Your task to perform on an android device: uninstall "Adobe Express: Graphic Design" Image 0: 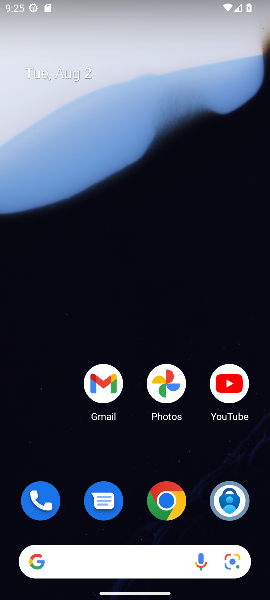
Step 0: drag from (137, 520) to (177, 124)
Your task to perform on an android device: uninstall "Adobe Express: Graphic Design" Image 1: 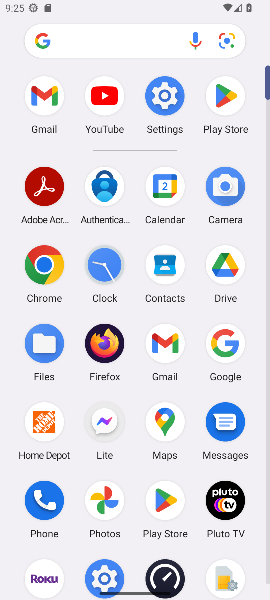
Step 1: click (236, 83)
Your task to perform on an android device: uninstall "Adobe Express: Graphic Design" Image 2: 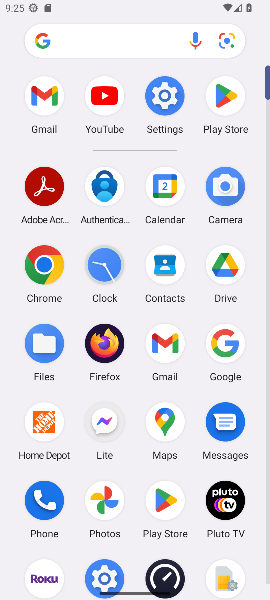
Step 2: click (236, 83)
Your task to perform on an android device: uninstall "Adobe Express: Graphic Design" Image 3: 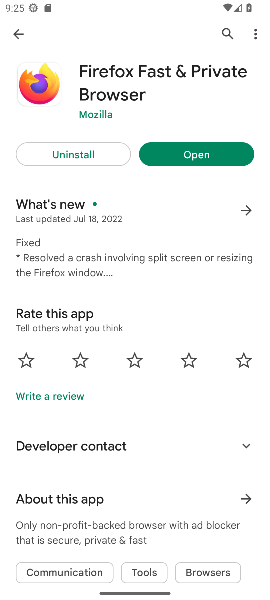
Step 3: drag from (119, 255) to (224, 390)
Your task to perform on an android device: uninstall "Adobe Express: Graphic Design" Image 4: 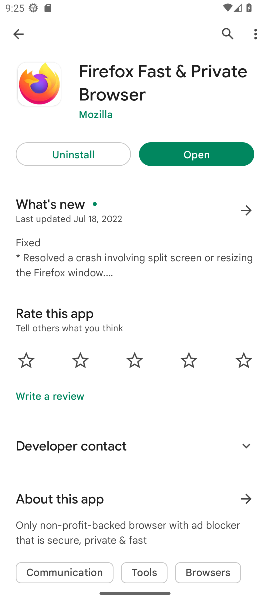
Step 4: click (225, 28)
Your task to perform on an android device: uninstall "Adobe Express: Graphic Design" Image 5: 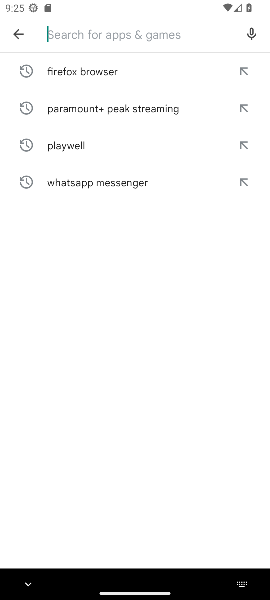
Step 5: type "Adobe Express: Graphic Design"
Your task to perform on an android device: uninstall "Adobe Express: Graphic Design" Image 6: 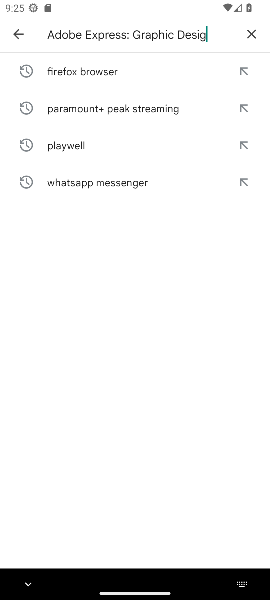
Step 6: type ""
Your task to perform on an android device: uninstall "Adobe Express: Graphic Design" Image 7: 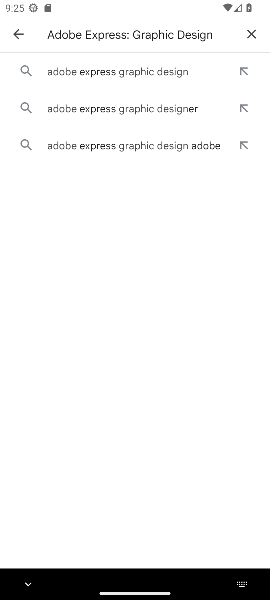
Step 7: click (113, 70)
Your task to perform on an android device: uninstall "Adobe Express: Graphic Design" Image 8: 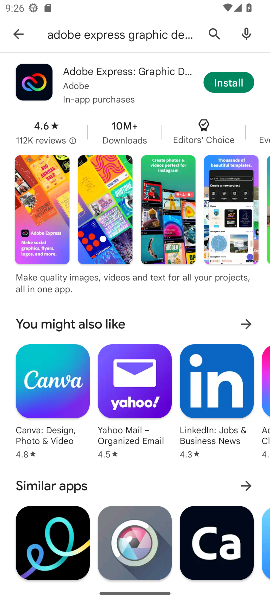
Step 8: drag from (108, 473) to (151, 215)
Your task to perform on an android device: uninstall "Adobe Express: Graphic Design" Image 9: 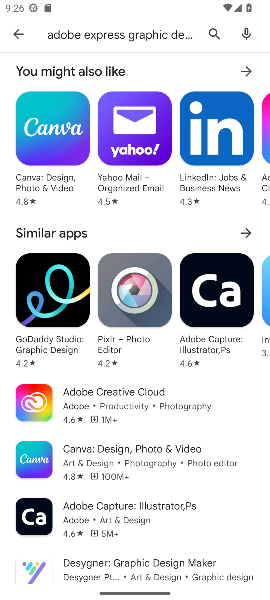
Step 9: drag from (152, 193) to (229, 599)
Your task to perform on an android device: uninstall "Adobe Express: Graphic Design" Image 10: 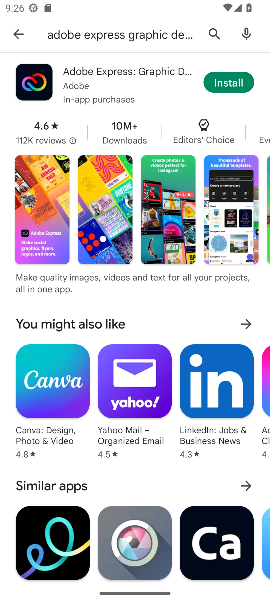
Step 10: click (213, 31)
Your task to perform on an android device: uninstall "Adobe Express: Graphic Design" Image 11: 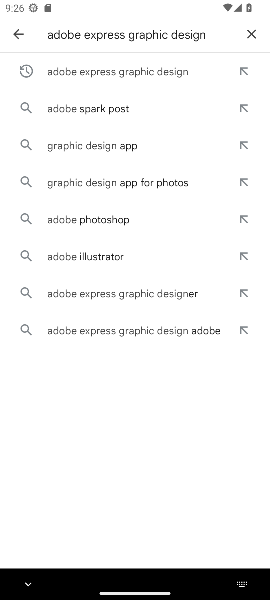
Step 11: click (246, 32)
Your task to perform on an android device: uninstall "Adobe Express: Graphic Design" Image 12: 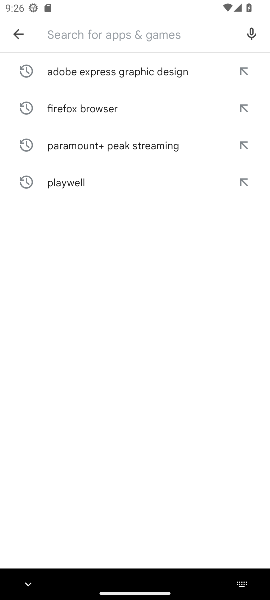
Step 12: type "Adobe Express: Graphic Design"
Your task to perform on an android device: uninstall "Adobe Express: Graphic Design" Image 13: 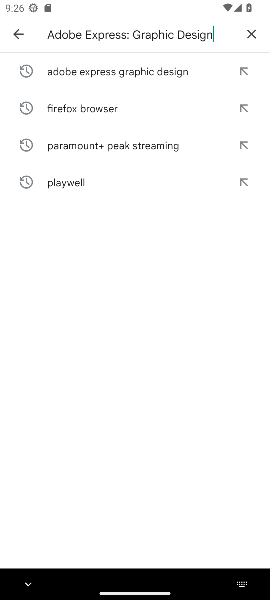
Step 13: type ""
Your task to perform on an android device: uninstall "Adobe Express: Graphic Design" Image 14: 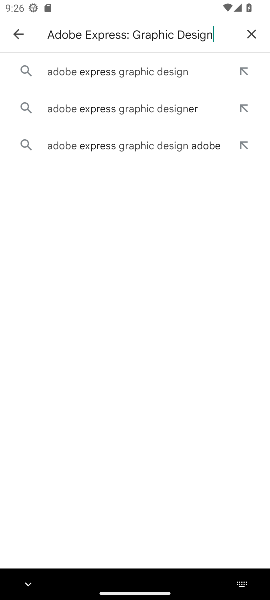
Step 14: click (93, 65)
Your task to perform on an android device: uninstall "Adobe Express: Graphic Design" Image 15: 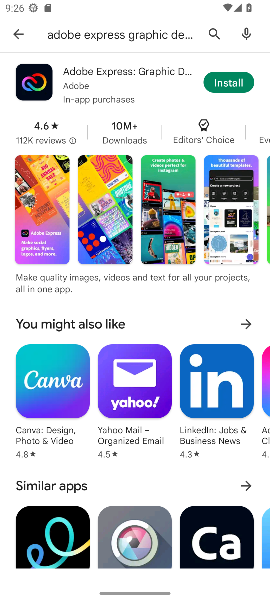
Step 15: drag from (113, 212) to (255, 533)
Your task to perform on an android device: uninstall "Adobe Express: Graphic Design" Image 16: 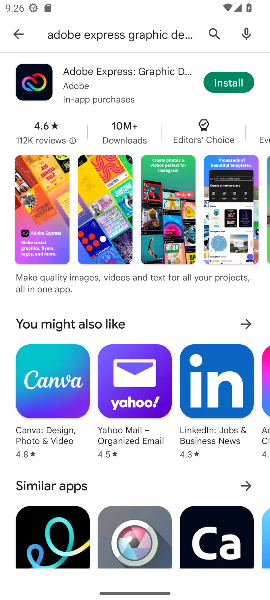
Step 16: click (103, 80)
Your task to perform on an android device: uninstall "Adobe Express: Graphic Design" Image 17: 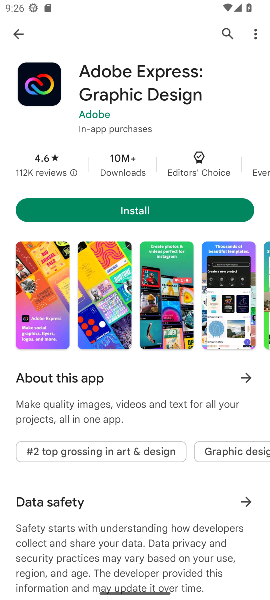
Step 17: task complete